Your task to perform on an android device: set the timer Image 0: 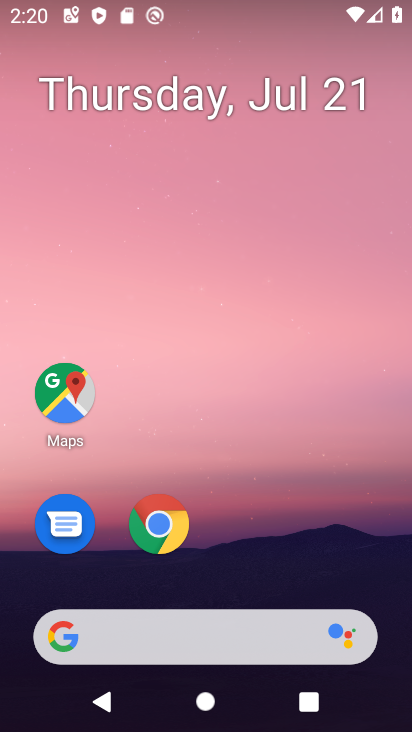
Step 0: drag from (300, 518) to (335, 42)
Your task to perform on an android device: set the timer Image 1: 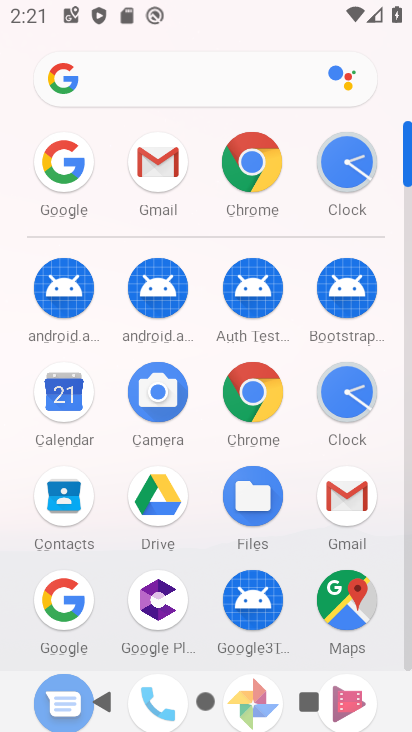
Step 1: click (344, 157)
Your task to perform on an android device: set the timer Image 2: 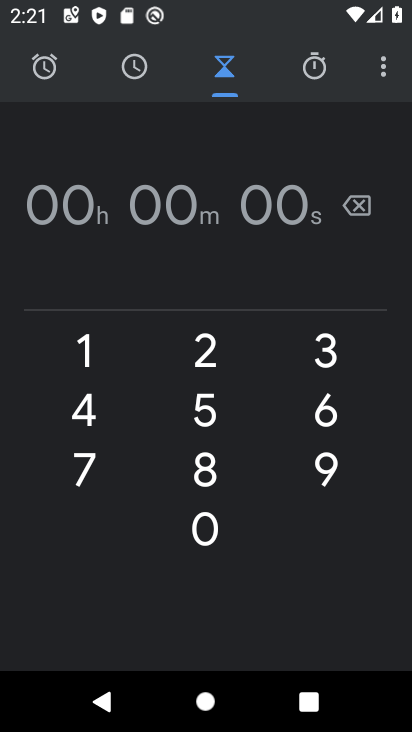
Step 2: click (94, 353)
Your task to perform on an android device: set the timer Image 3: 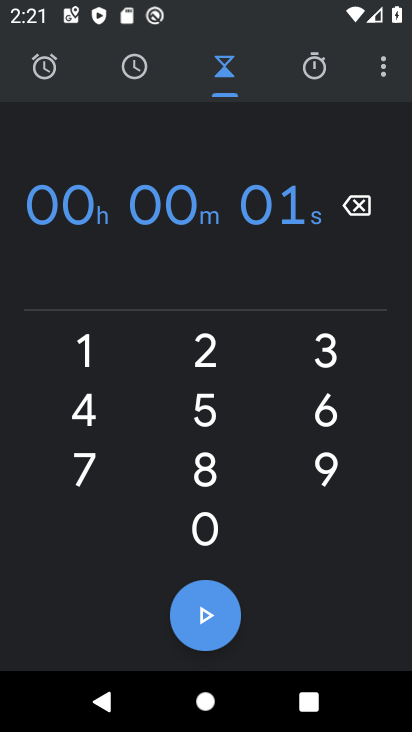
Step 3: click (82, 393)
Your task to perform on an android device: set the timer Image 4: 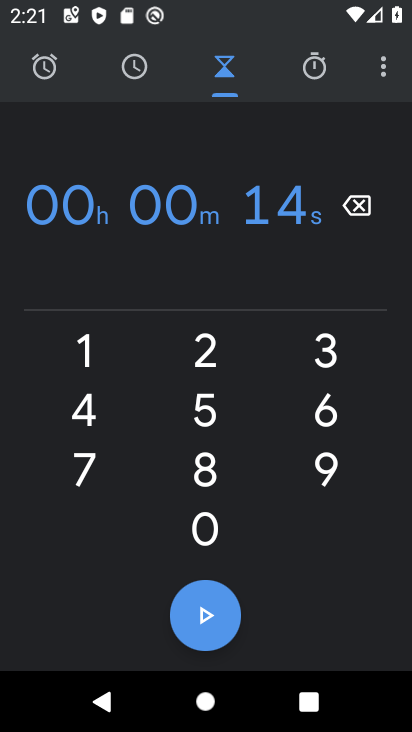
Step 4: task complete